Your task to perform on an android device: turn pop-ups on in chrome Image 0: 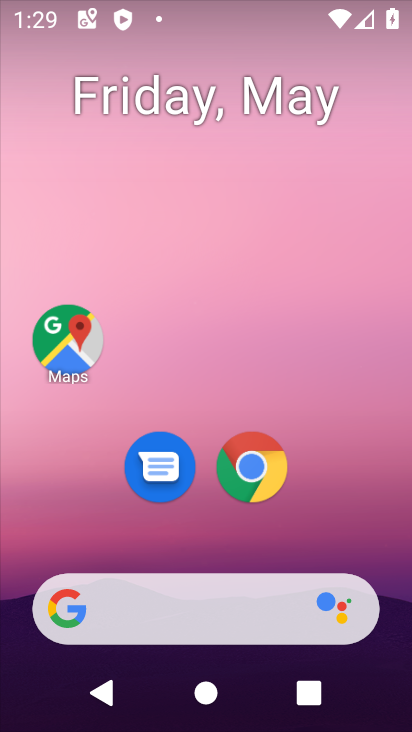
Step 0: click (256, 485)
Your task to perform on an android device: turn pop-ups on in chrome Image 1: 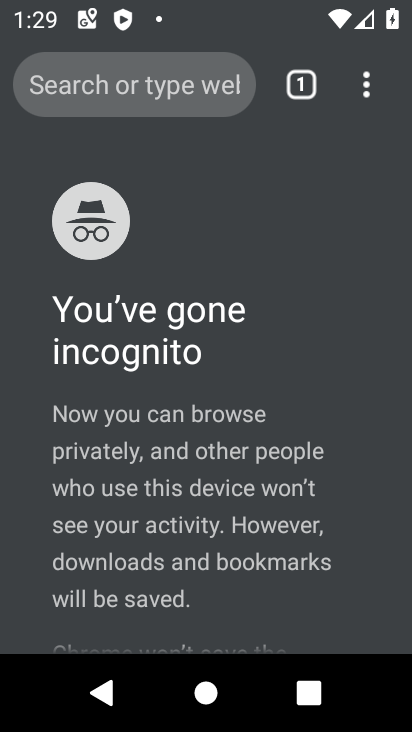
Step 1: click (376, 87)
Your task to perform on an android device: turn pop-ups on in chrome Image 2: 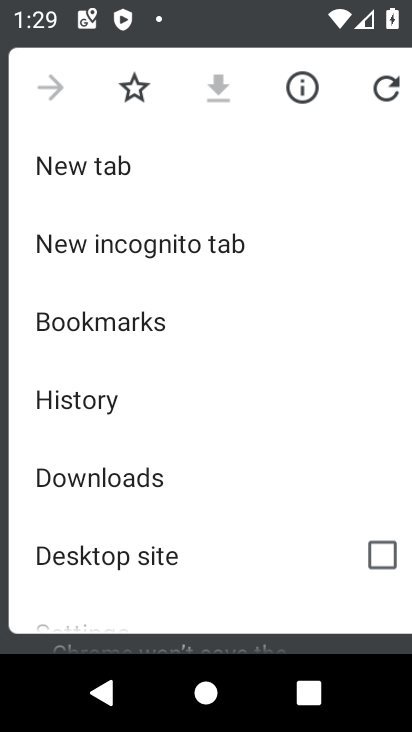
Step 2: drag from (88, 439) to (142, 233)
Your task to perform on an android device: turn pop-ups on in chrome Image 3: 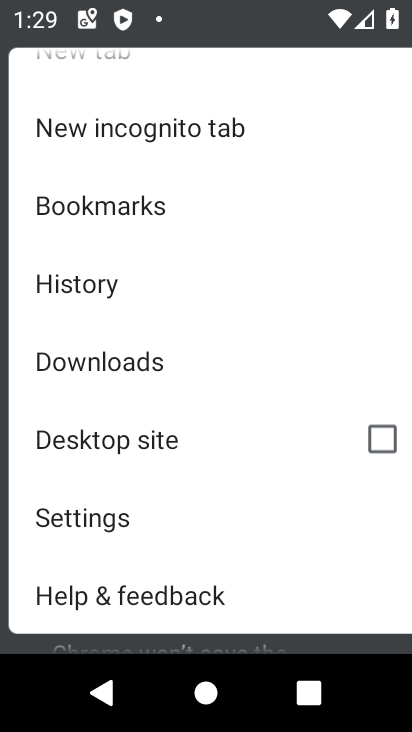
Step 3: click (73, 510)
Your task to perform on an android device: turn pop-ups on in chrome Image 4: 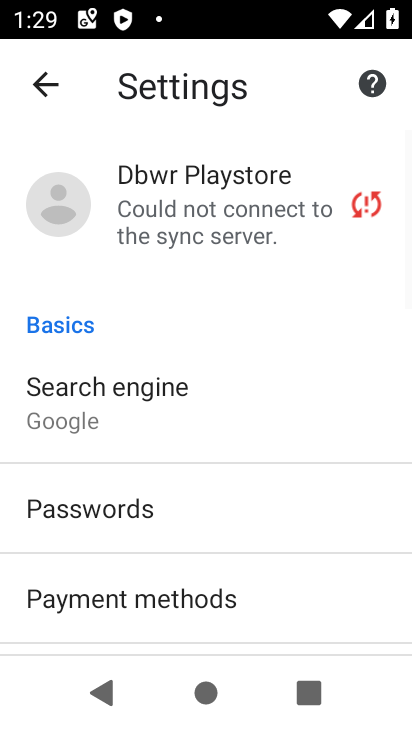
Step 4: drag from (87, 547) to (134, 297)
Your task to perform on an android device: turn pop-ups on in chrome Image 5: 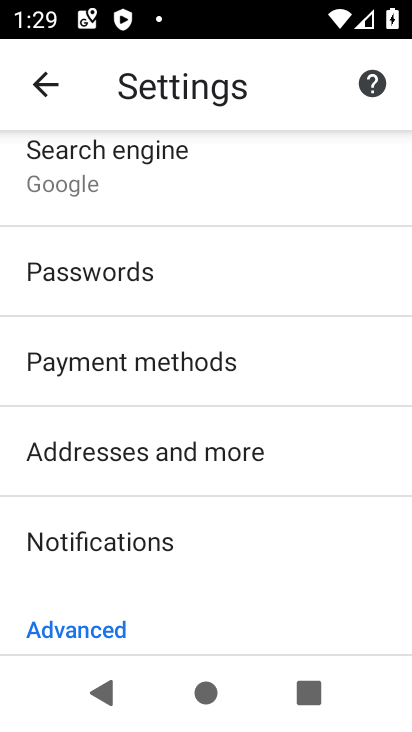
Step 5: drag from (82, 586) to (142, 288)
Your task to perform on an android device: turn pop-ups on in chrome Image 6: 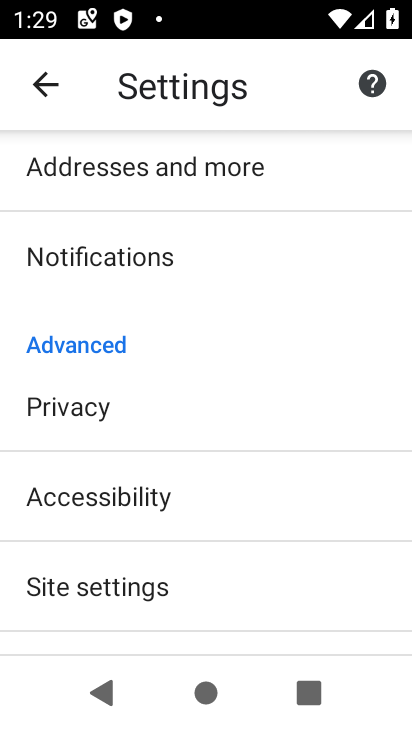
Step 6: click (95, 579)
Your task to perform on an android device: turn pop-ups on in chrome Image 7: 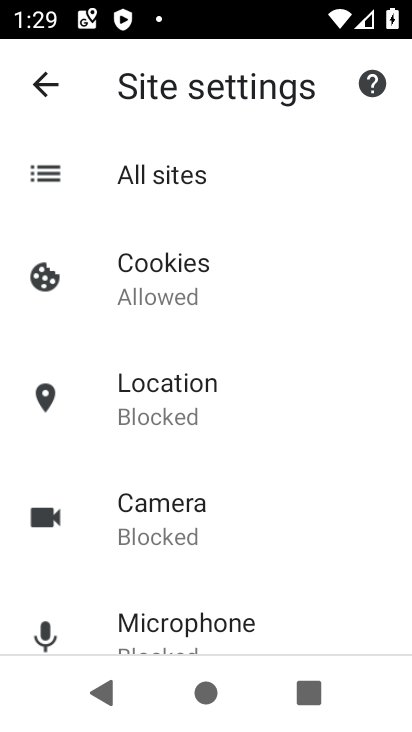
Step 7: drag from (147, 580) to (204, 294)
Your task to perform on an android device: turn pop-ups on in chrome Image 8: 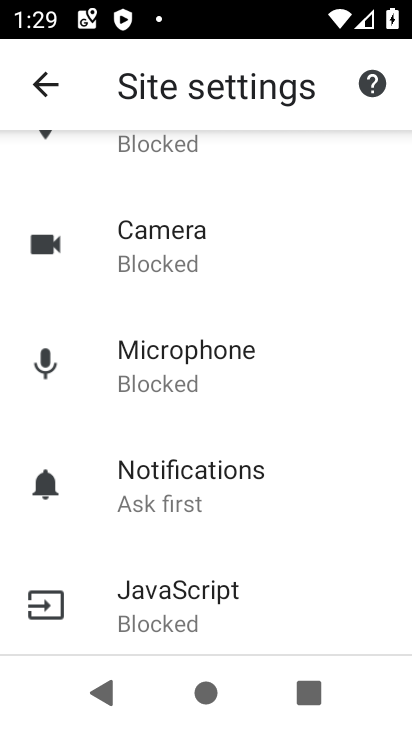
Step 8: drag from (170, 535) to (224, 280)
Your task to perform on an android device: turn pop-ups on in chrome Image 9: 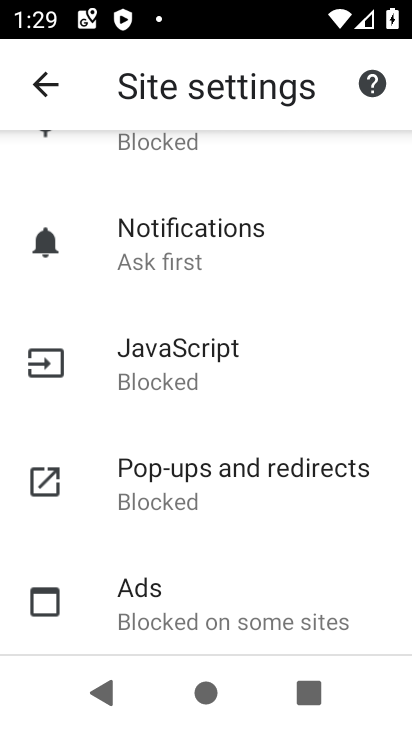
Step 9: click (159, 476)
Your task to perform on an android device: turn pop-ups on in chrome Image 10: 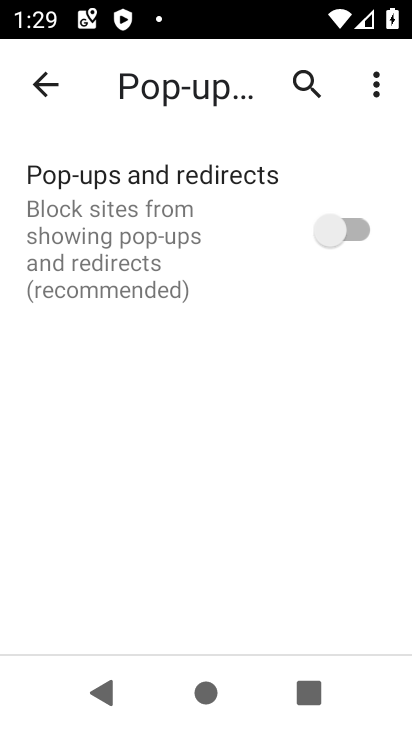
Step 10: click (355, 220)
Your task to perform on an android device: turn pop-ups on in chrome Image 11: 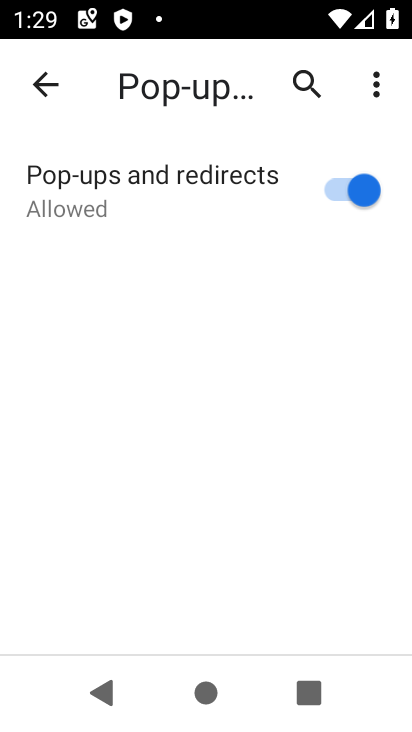
Step 11: task complete